Your task to perform on an android device: Go to display settings Image 0: 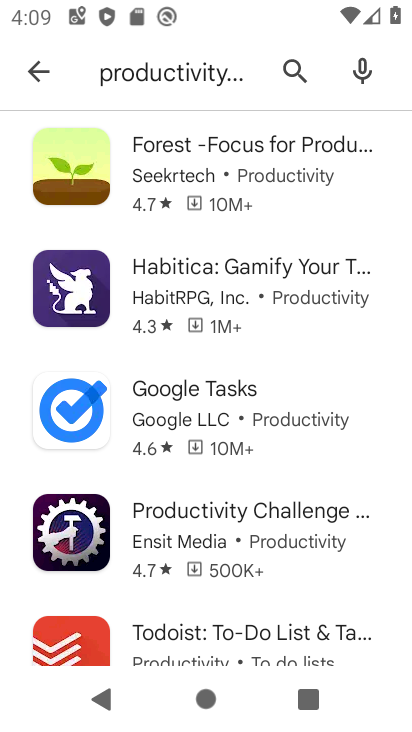
Step 0: press home button
Your task to perform on an android device: Go to display settings Image 1: 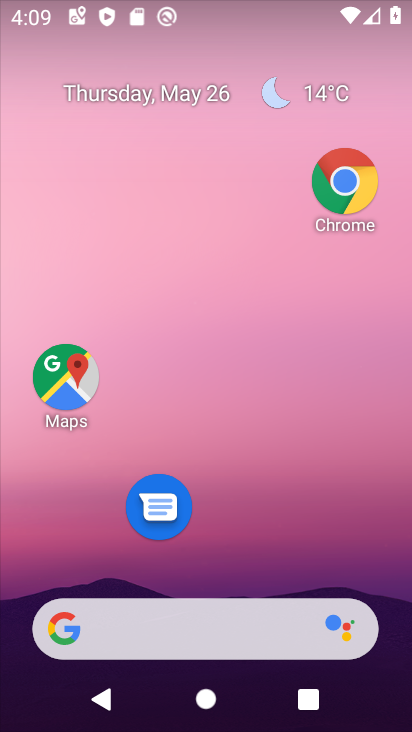
Step 1: drag from (296, 565) to (295, 154)
Your task to perform on an android device: Go to display settings Image 2: 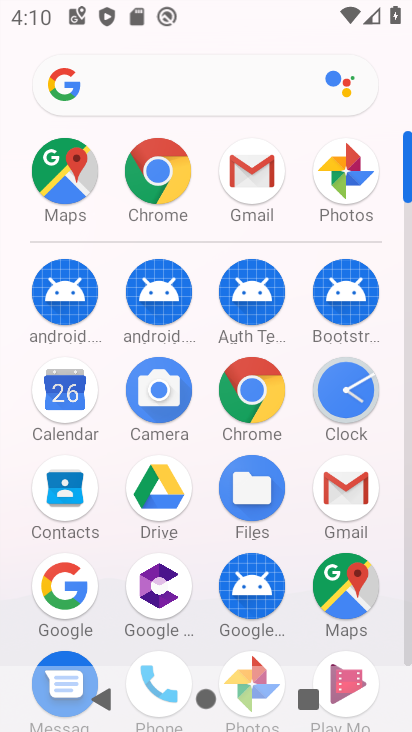
Step 2: drag from (302, 255) to (308, 66)
Your task to perform on an android device: Go to display settings Image 3: 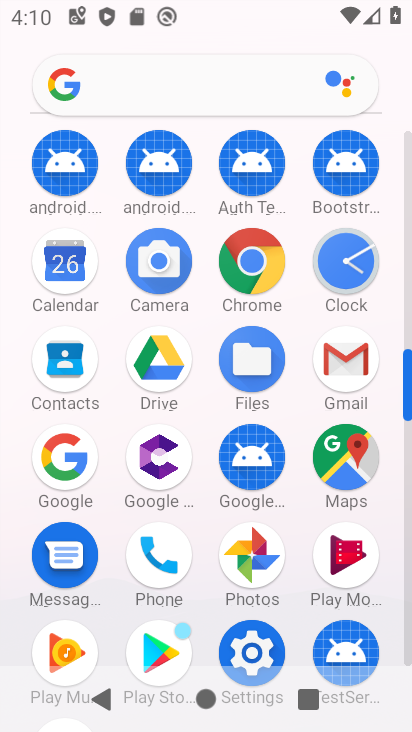
Step 3: click (250, 640)
Your task to perform on an android device: Go to display settings Image 4: 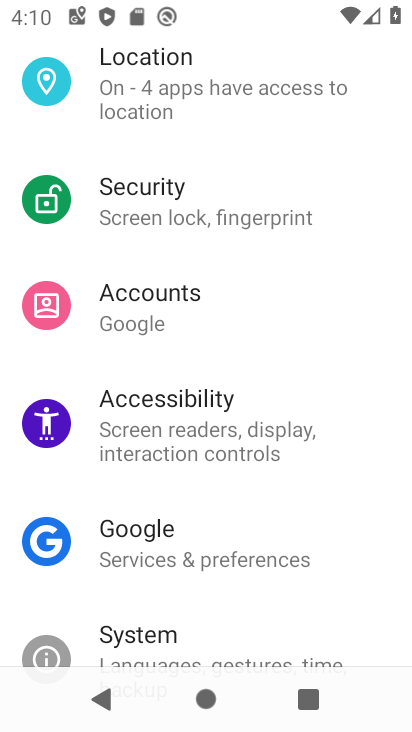
Step 4: drag from (300, 181) to (291, 610)
Your task to perform on an android device: Go to display settings Image 5: 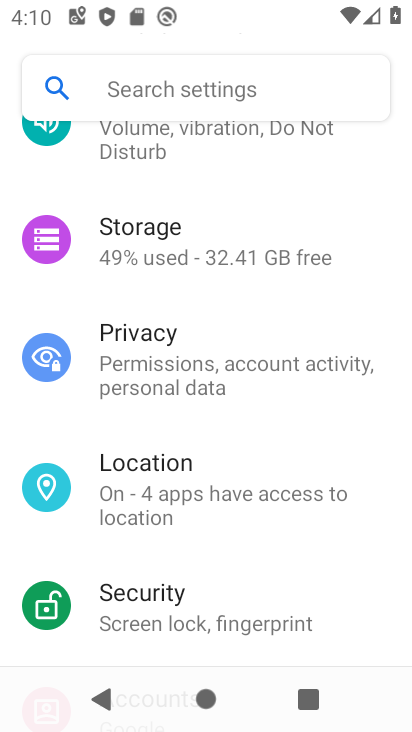
Step 5: drag from (302, 188) to (287, 592)
Your task to perform on an android device: Go to display settings Image 6: 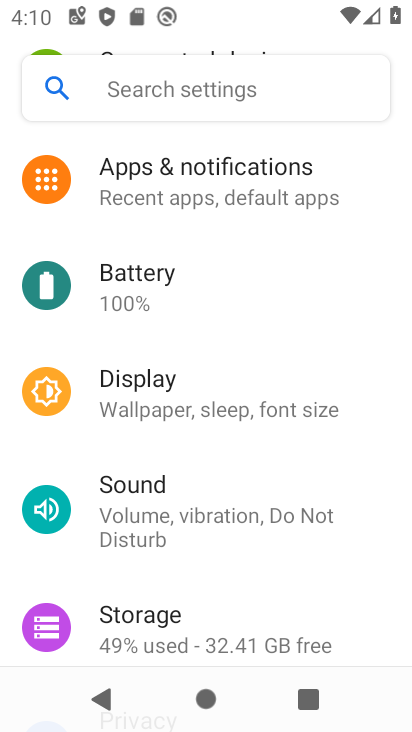
Step 6: click (141, 385)
Your task to perform on an android device: Go to display settings Image 7: 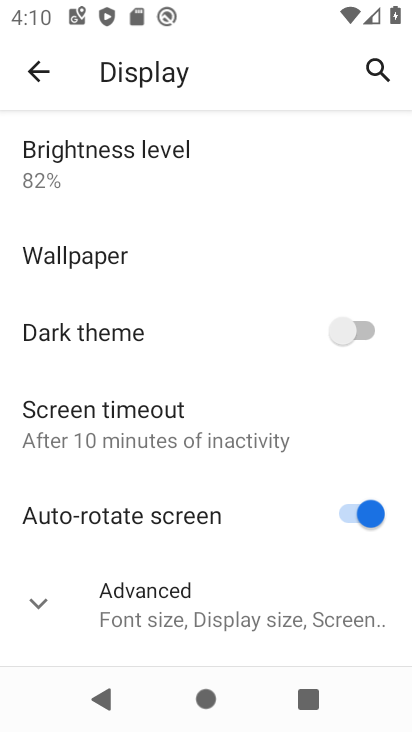
Step 7: task complete